Your task to perform on an android device: Open calendar and show me the third week of next month Image 0: 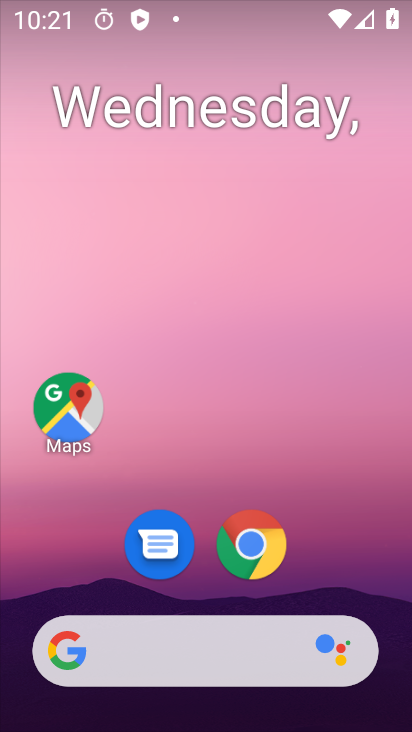
Step 0: press home button
Your task to perform on an android device: Open calendar and show me the third week of next month Image 1: 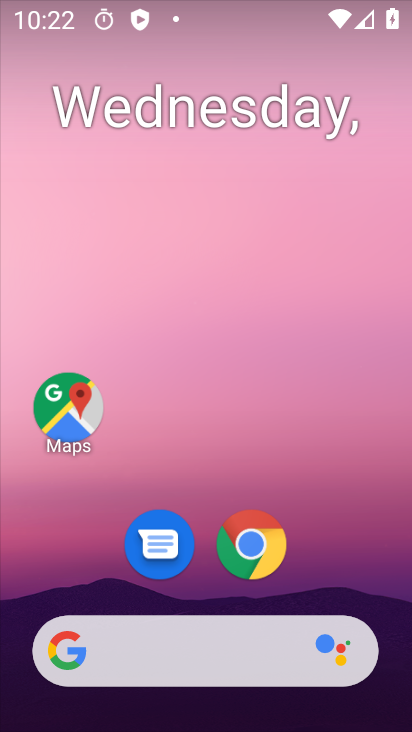
Step 1: drag from (282, 692) to (241, 129)
Your task to perform on an android device: Open calendar and show me the third week of next month Image 2: 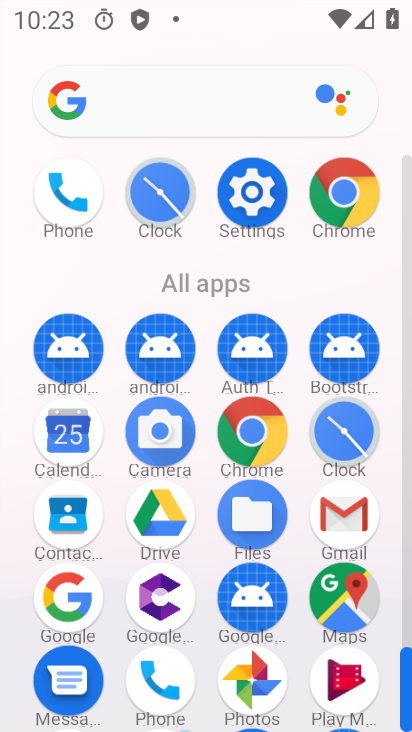
Step 2: click (81, 441)
Your task to perform on an android device: Open calendar and show me the third week of next month Image 3: 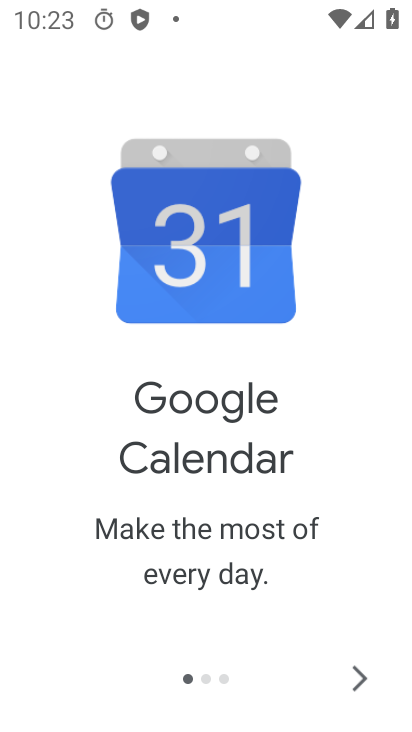
Step 3: click (353, 693)
Your task to perform on an android device: Open calendar and show me the third week of next month Image 4: 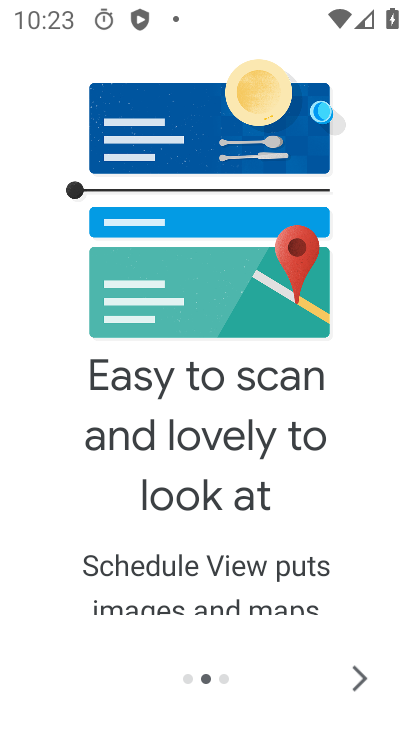
Step 4: click (364, 674)
Your task to perform on an android device: Open calendar and show me the third week of next month Image 5: 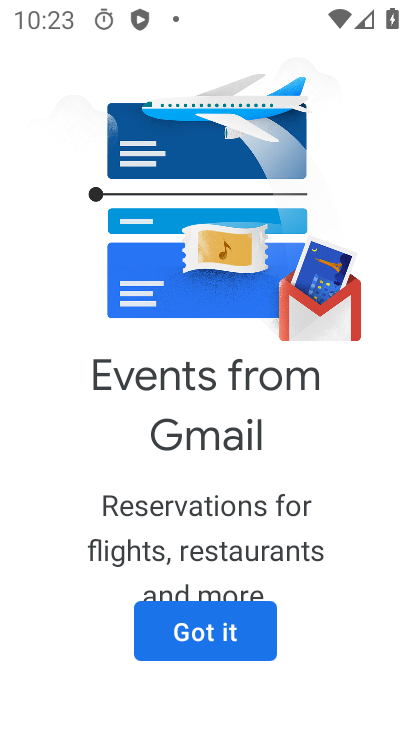
Step 5: click (252, 628)
Your task to perform on an android device: Open calendar and show me the third week of next month Image 6: 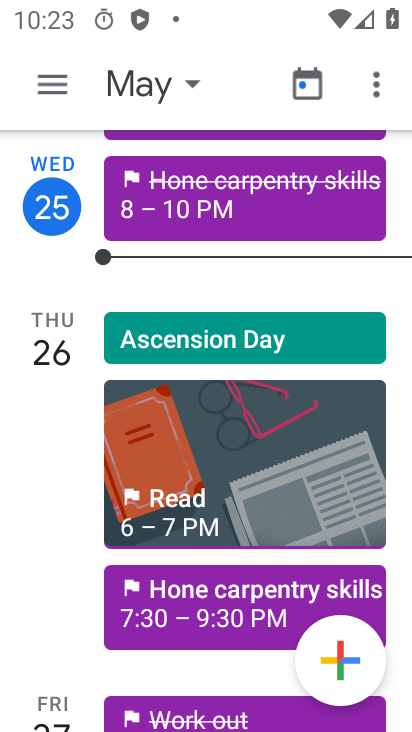
Step 6: click (45, 83)
Your task to perform on an android device: Open calendar and show me the third week of next month Image 7: 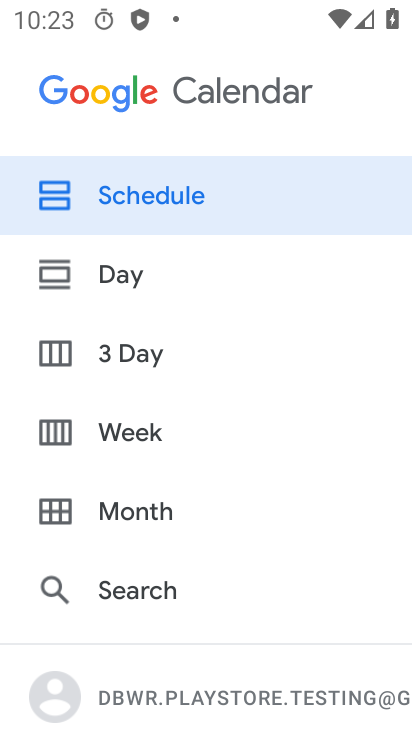
Step 7: click (132, 507)
Your task to perform on an android device: Open calendar and show me the third week of next month Image 8: 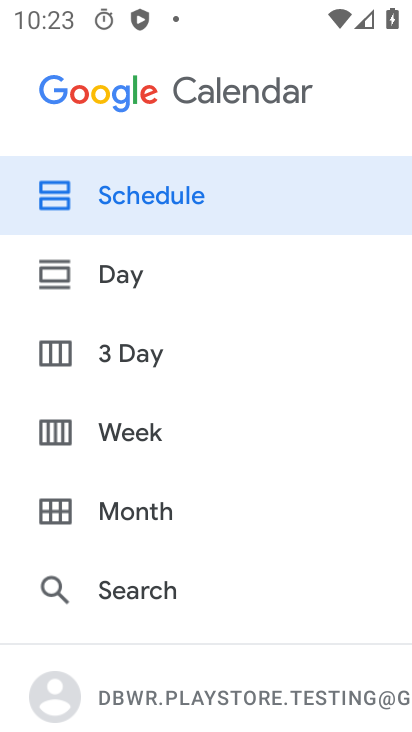
Step 8: click (130, 508)
Your task to perform on an android device: Open calendar and show me the third week of next month Image 9: 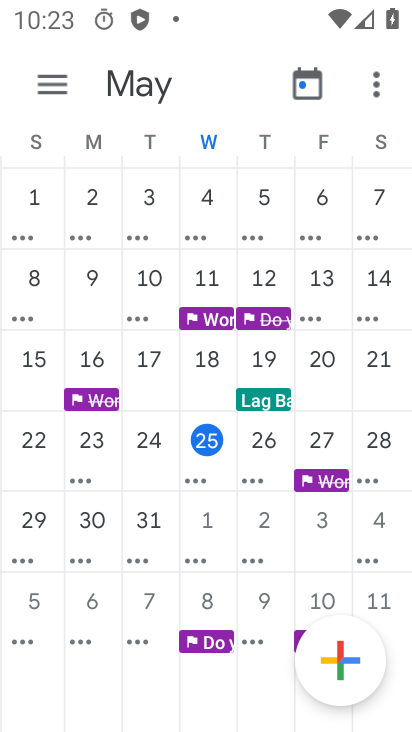
Step 9: drag from (337, 437) to (13, 366)
Your task to perform on an android device: Open calendar and show me the third week of next month Image 10: 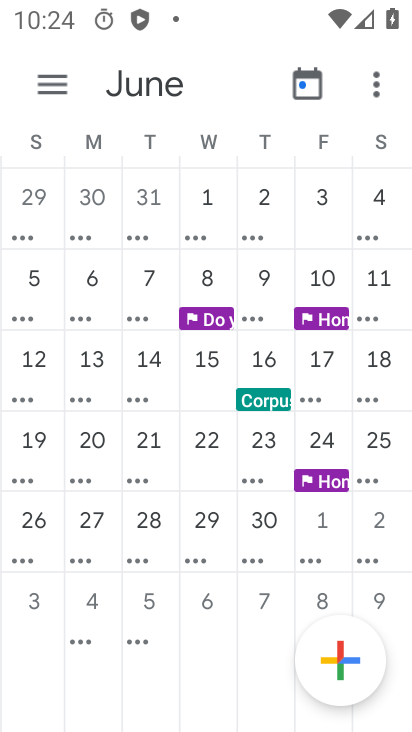
Step 10: click (103, 398)
Your task to perform on an android device: Open calendar and show me the third week of next month Image 11: 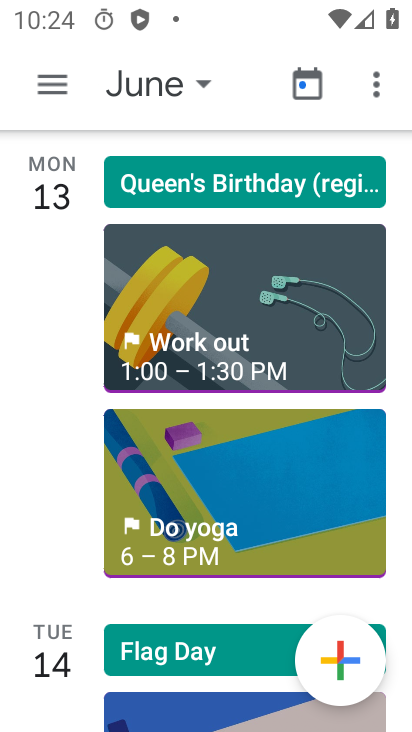
Step 11: task complete